Your task to perform on an android device: change the upload size in google photos Image 0: 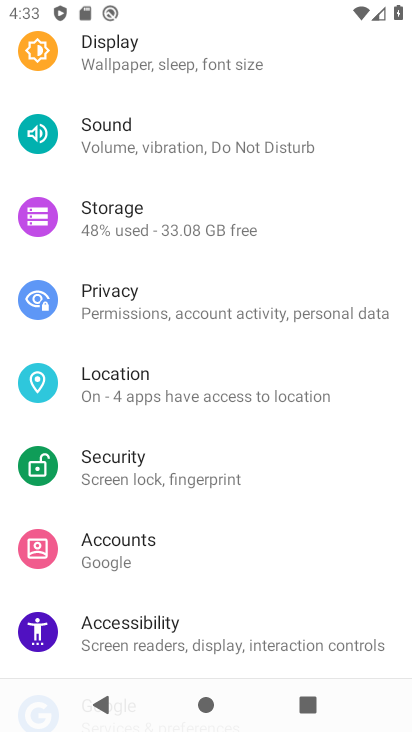
Step 0: press back button
Your task to perform on an android device: change the upload size in google photos Image 1: 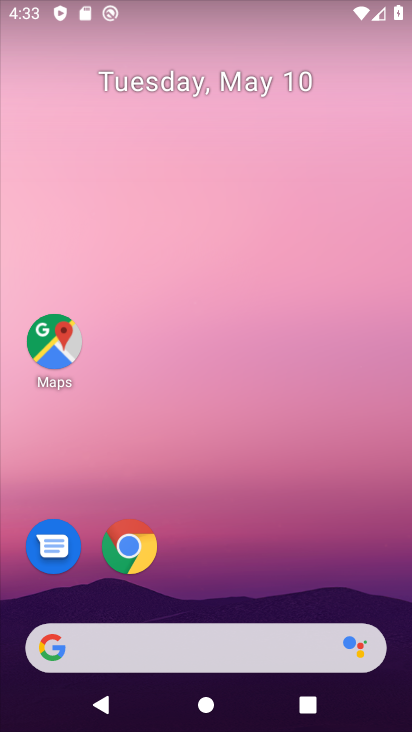
Step 1: drag from (179, 609) to (275, 37)
Your task to perform on an android device: change the upload size in google photos Image 2: 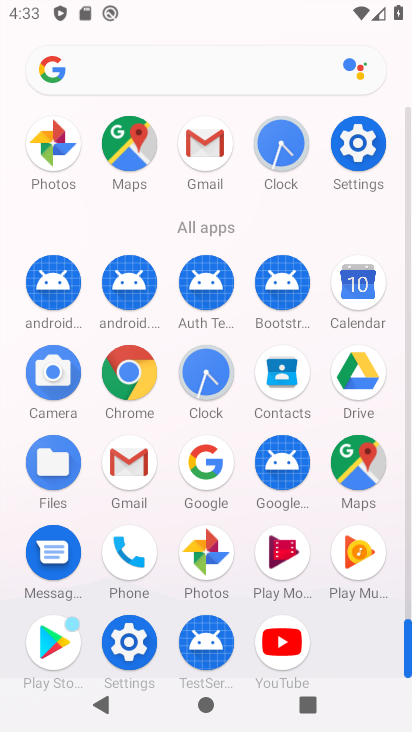
Step 2: click (213, 552)
Your task to perform on an android device: change the upload size in google photos Image 3: 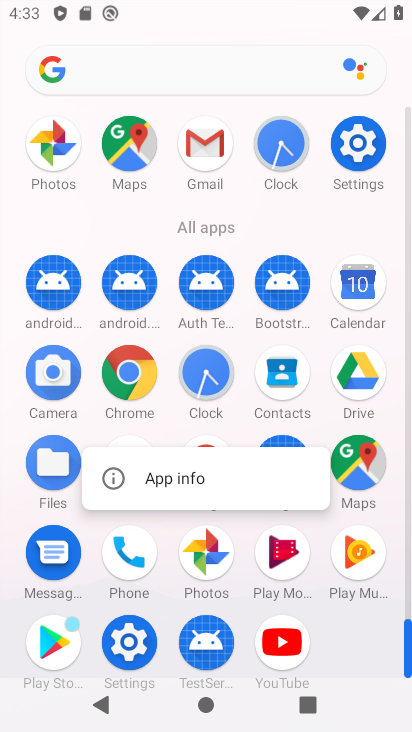
Step 3: click (210, 550)
Your task to perform on an android device: change the upload size in google photos Image 4: 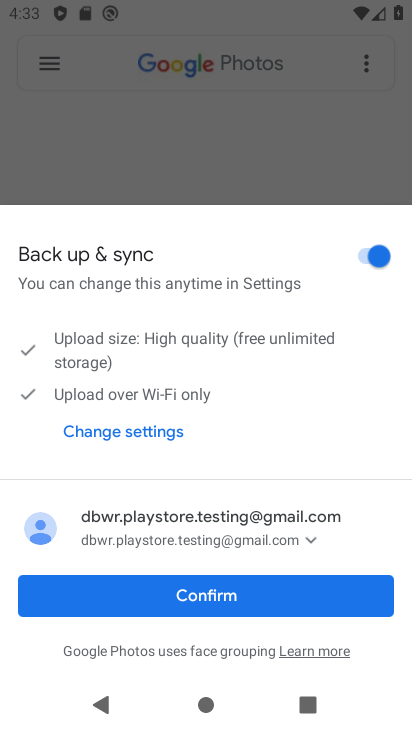
Step 4: click (224, 599)
Your task to perform on an android device: change the upload size in google photos Image 5: 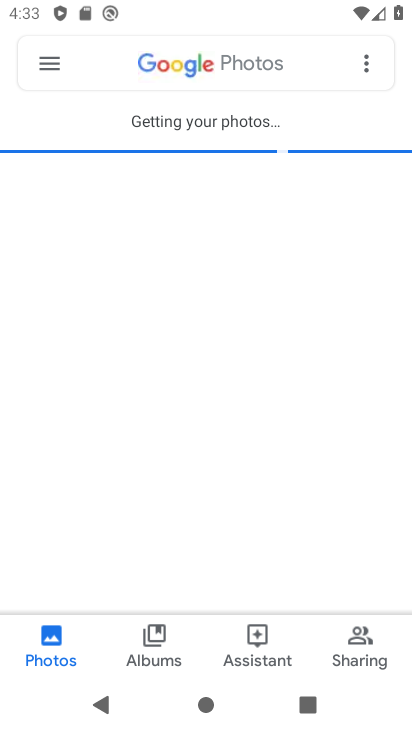
Step 5: click (44, 68)
Your task to perform on an android device: change the upload size in google photos Image 6: 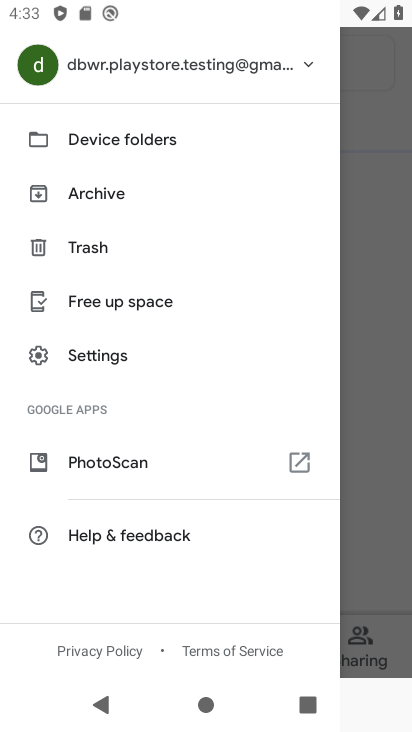
Step 6: click (145, 368)
Your task to perform on an android device: change the upload size in google photos Image 7: 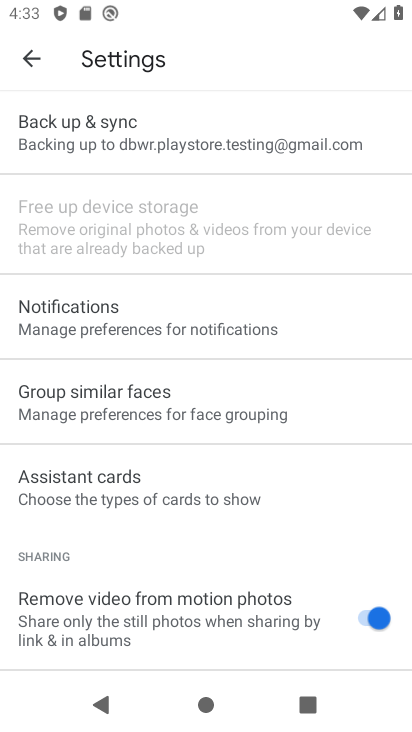
Step 7: drag from (162, 574) to (221, 309)
Your task to perform on an android device: change the upload size in google photos Image 8: 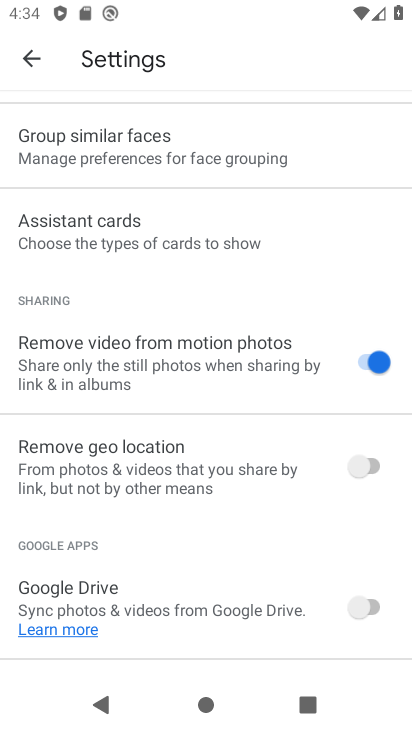
Step 8: drag from (140, 552) to (192, 703)
Your task to perform on an android device: change the upload size in google photos Image 9: 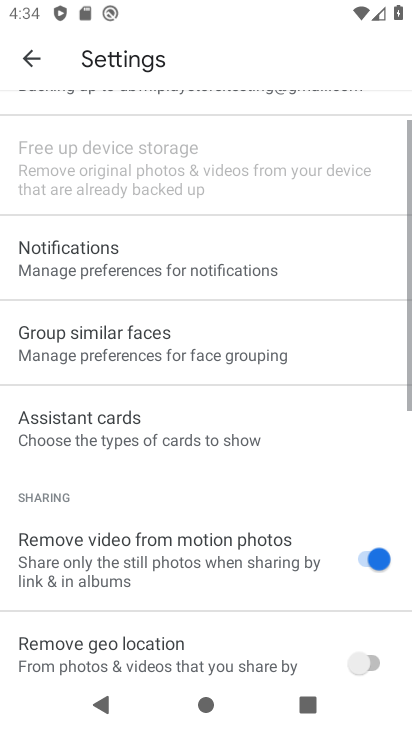
Step 9: drag from (202, 207) to (202, 613)
Your task to perform on an android device: change the upload size in google photos Image 10: 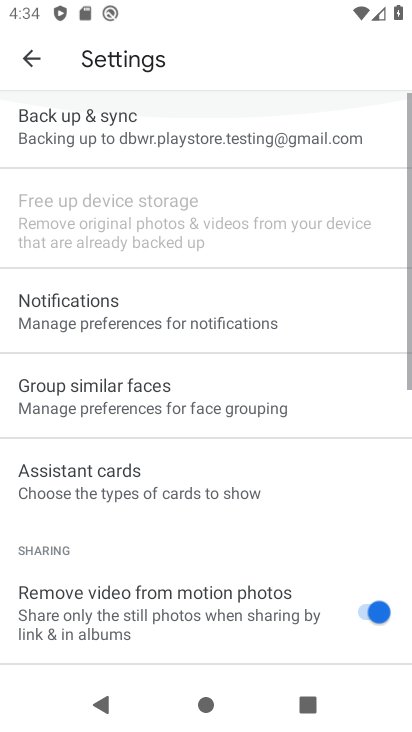
Step 10: click (133, 128)
Your task to perform on an android device: change the upload size in google photos Image 11: 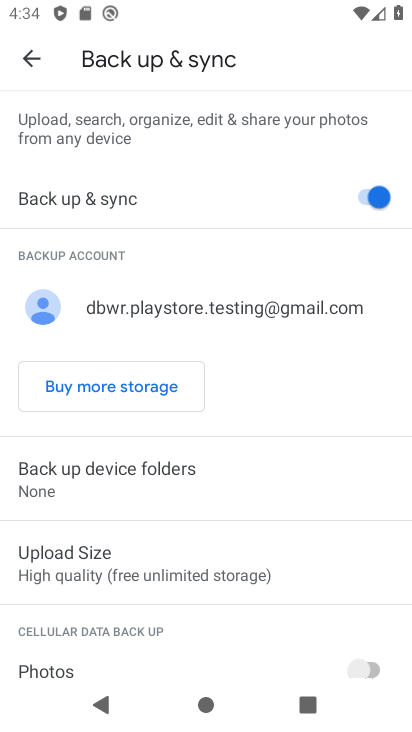
Step 11: click (160, 561)
Your task to perform on an android device: change the upload size in google photos Image 12: 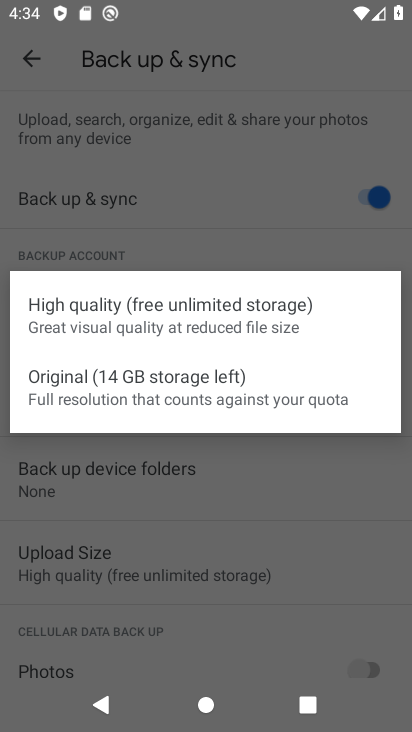
Step 12: click (159, 381)
Your task to perform on an android device: change the upload size in google photos Image 13: 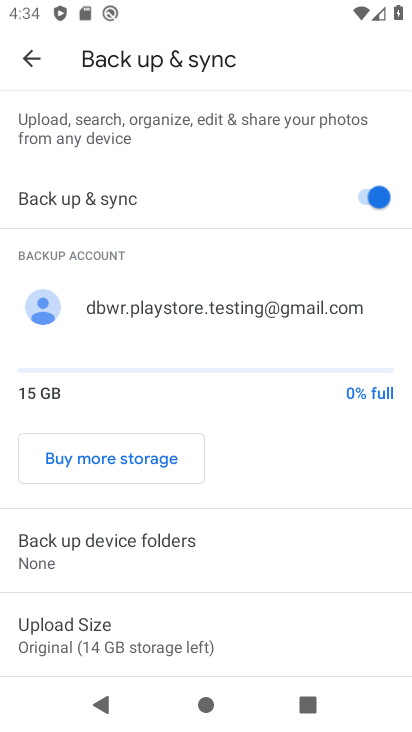
Step 13: task complete